Your task to perform on an android device: What is the recent news? Image 0: 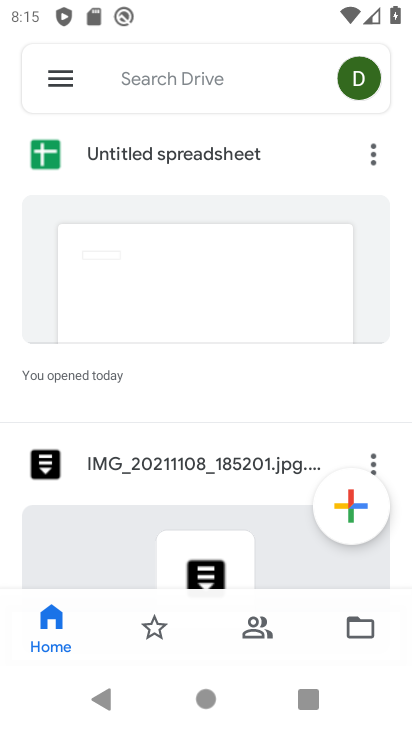
Step 0: press home button
Your task to perform on an android device: What is the recent news? Image 1: 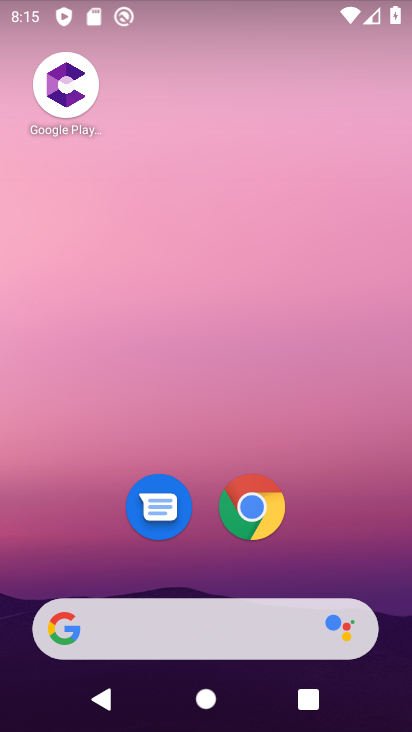
Step 1: task complete